Your task to perform on an android device: toggle improve location accuracy Image 0: 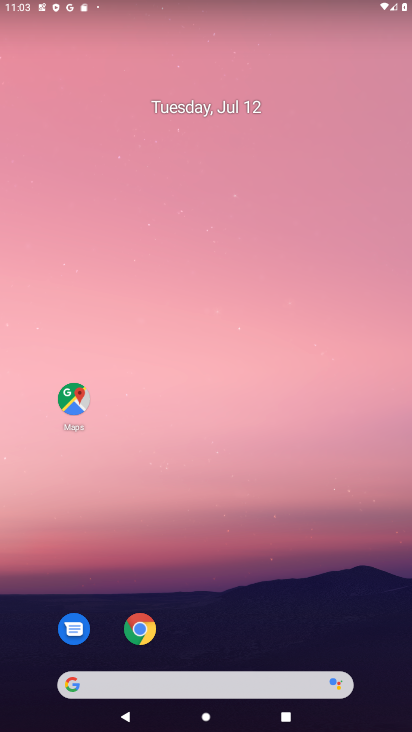
Step 0: drag from (207, 602) to (230, 235)
Your task to perform on an android device: toggle improve location accuracy Image 1: 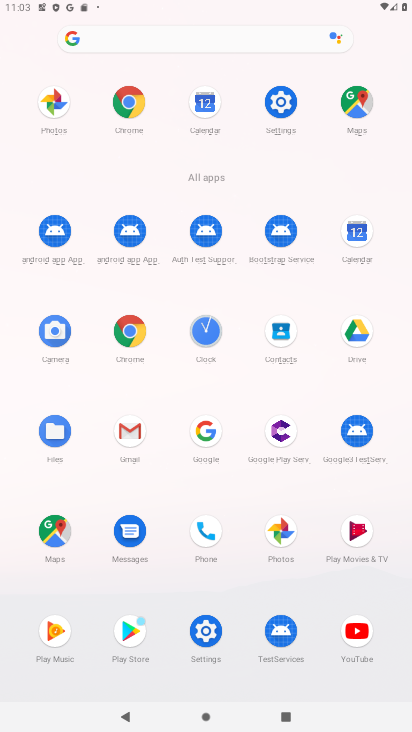
Step 1: click (266, 94)
Your task to perform on an android device: toggle improve location accuracy Image 2: 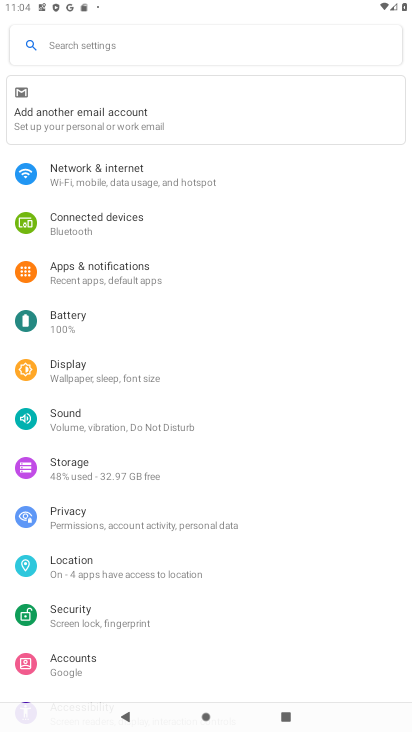
Step 2: click (77, 563)
Your task to perform on an android device: toggle improve location accuracy Image 3: 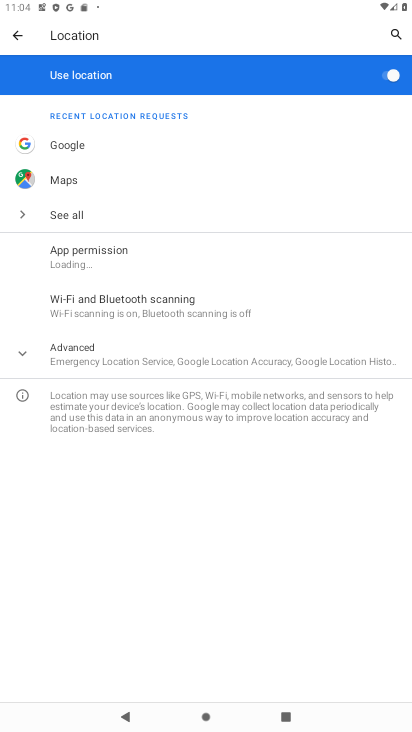
Step 3: click (170, 355)
Your task to perform on an android device: toggle improve location accuracy Image 4: 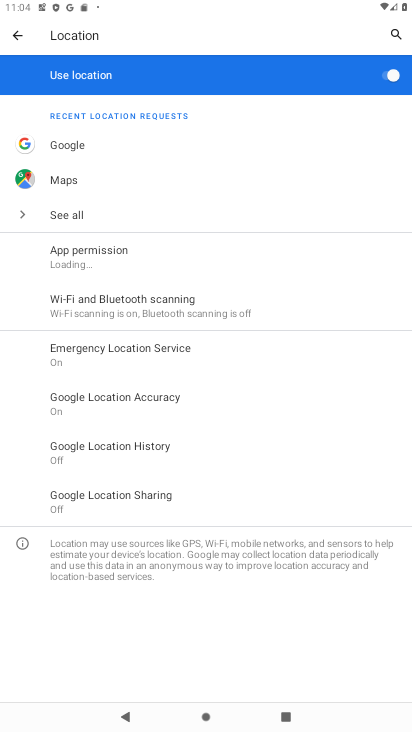
Step 4: click (127, 399)
Your task to perform on an android device: toggle improve location accuracy Image 5: 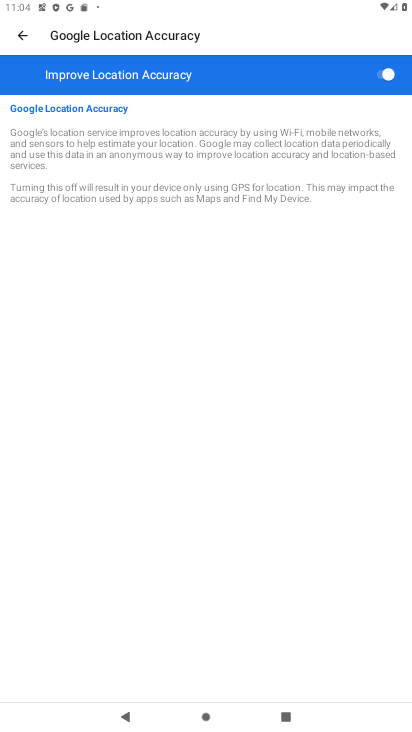
Step 5: click (385, 62)
Your task to perform on an android device: toggle improve location accuracy Image 6: 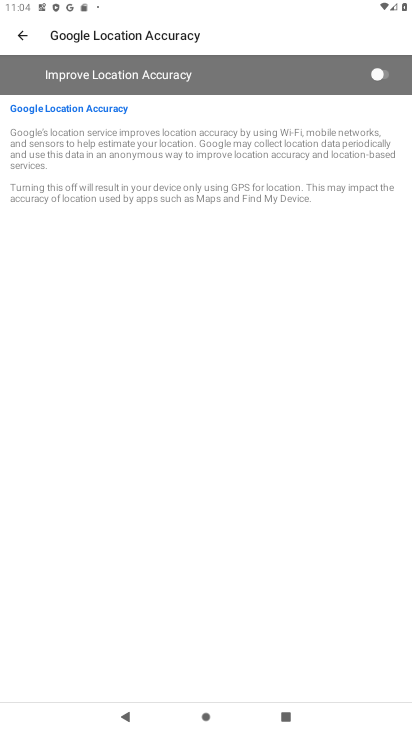
Step 6: task complete